Your task to perform on an android device: Turn on the flashlight Image 0: 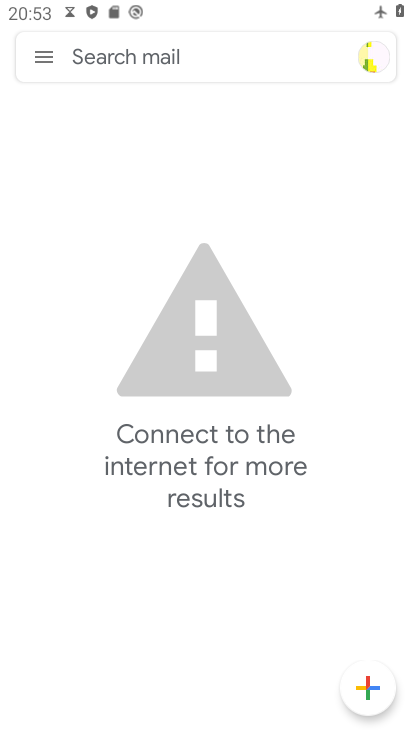
Step 0: press back button
Your task to perform on an android device: Turn on the flashlight Image 1: 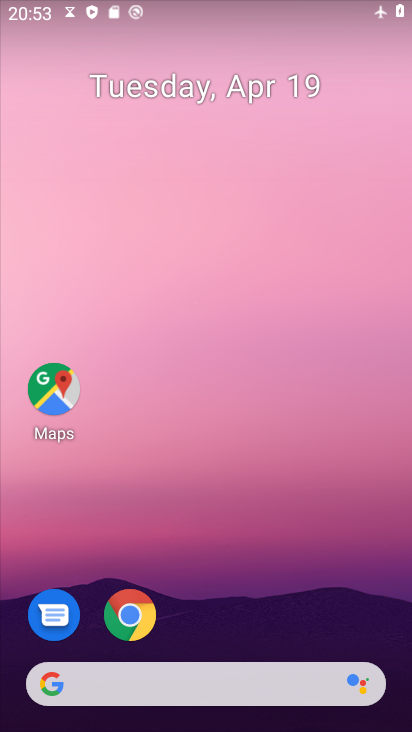
Step 1: drag from (252, 517) to (208, 57)
Your task to perform on an android device: Turn on the flashlight Image 2: 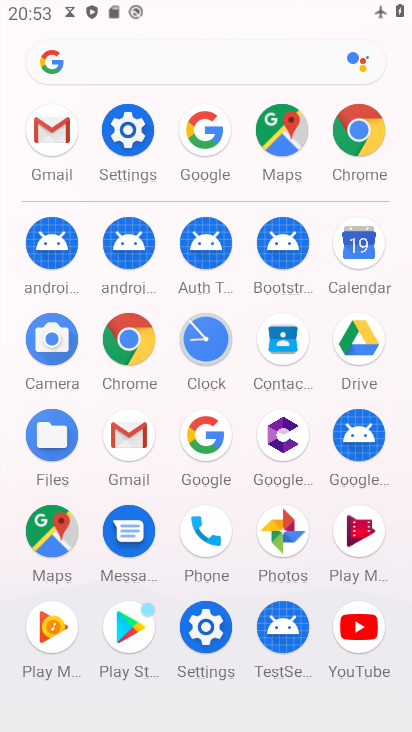
Step 2: click (130, 135)
Your task to perform on an android device: Turn on the flashlight Image 3: 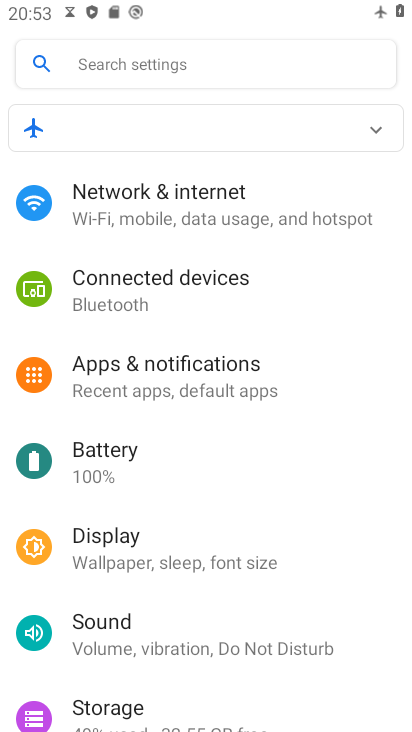
Step 3: click (224, 194)
Your task to perform on an android device: Turn on the flashlight Image 4: 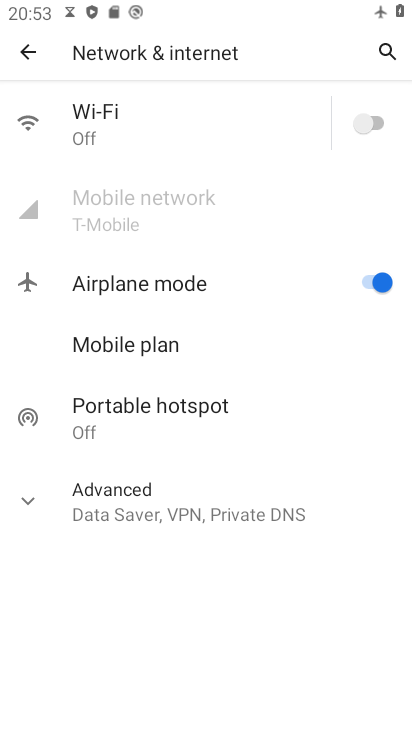
Step 4: click (41, 508)
Your task to perform on an android device: Turn on the flashlight Image 5: 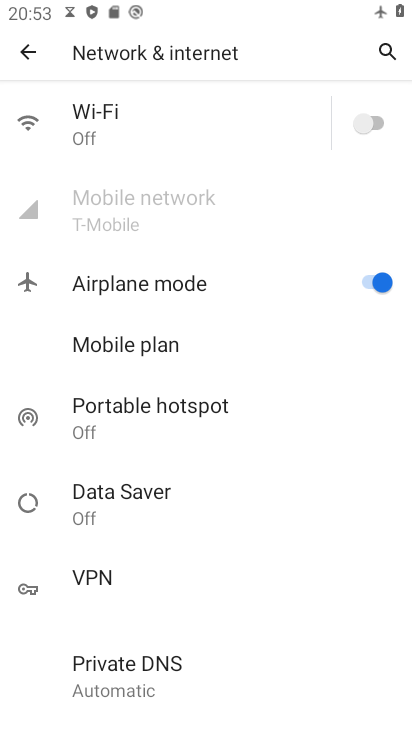
Step 5: drag from (255, 611) to (272, 169)
Your task to perform on an android device: Turn on the flashlight Image 6: 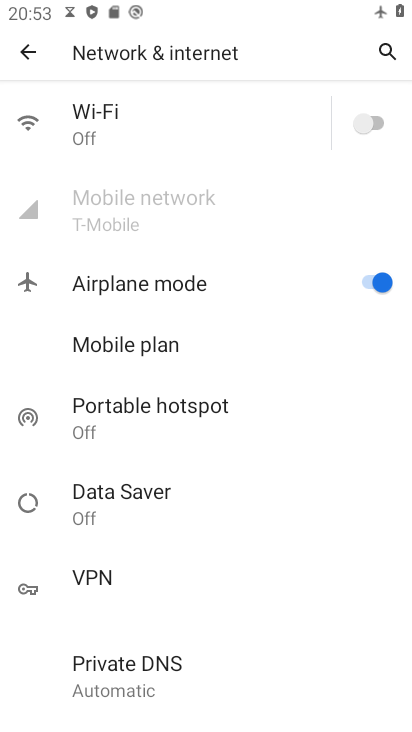
Step 6: click (36, 51)
Your task to perform on an android device: Turn on the flashlight Image 7: 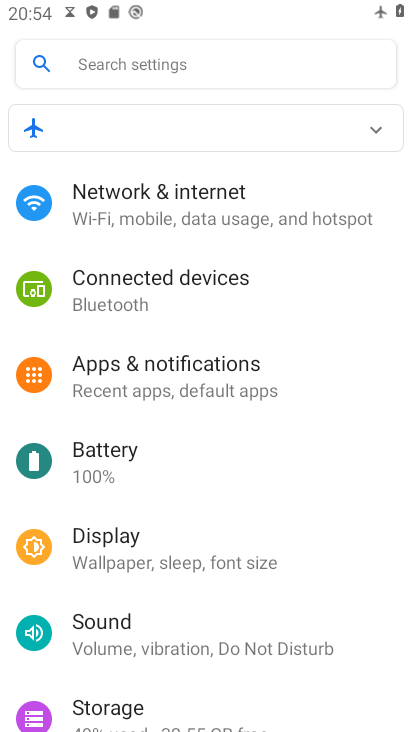
Step 7: task complete